Your task to perform on an android device: Go to Google maps Image 0: 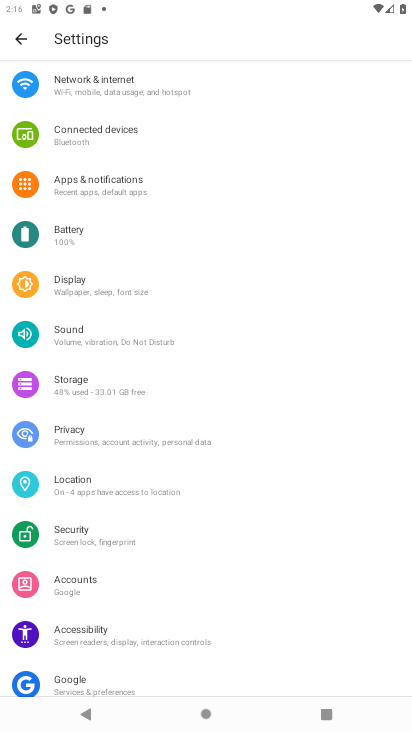
Step 0: press home button
Your task to perform on an android device: Go to Google maps Image 1: 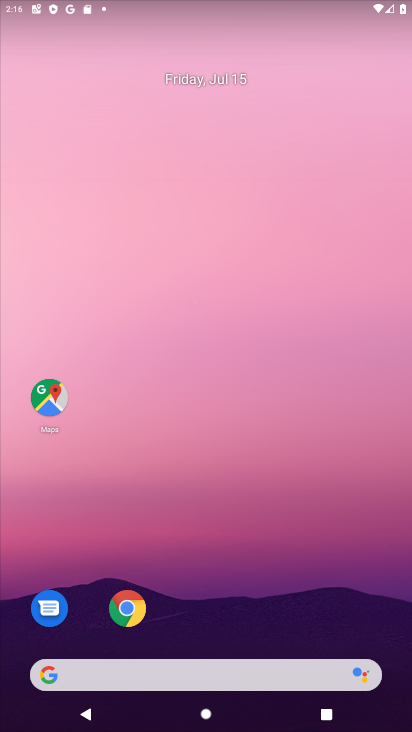
Step 1: drag from (158, 719) to (295, 5)
Your task to perform on an android device: Go to Google maps Image 2: 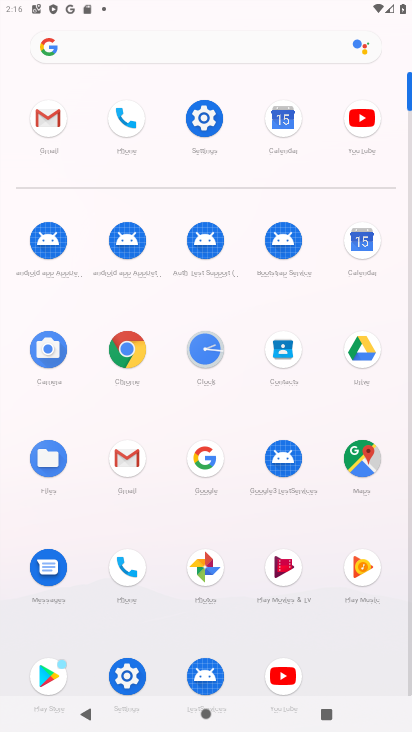
Step 2: click (362, 448)
Your task to perform on an android device: Go to Google maps Image 3: 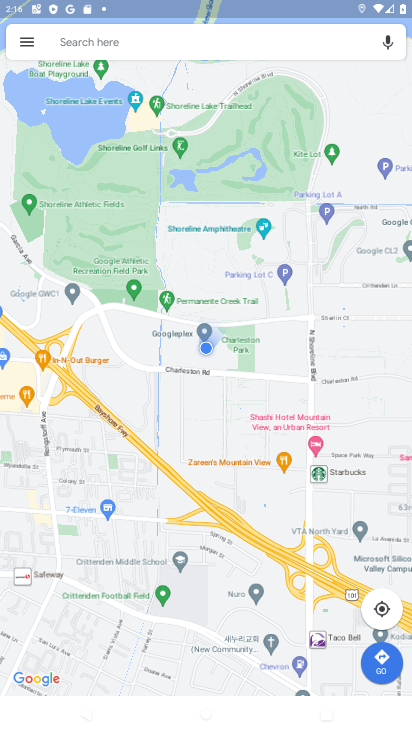
Step 3: task complete